Your task to perform on an android device: see tabs open on other devices in the chrome app Image 0: 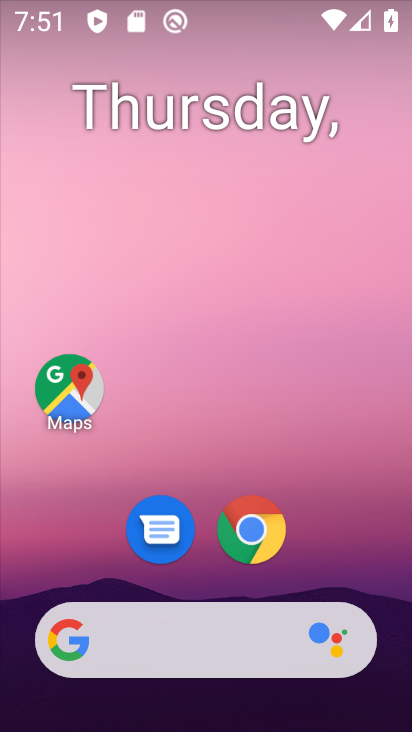
Step 0: click (247, 528)
Your task to perform on an android device: see tabs open on other devices in the chrome app Image 1: 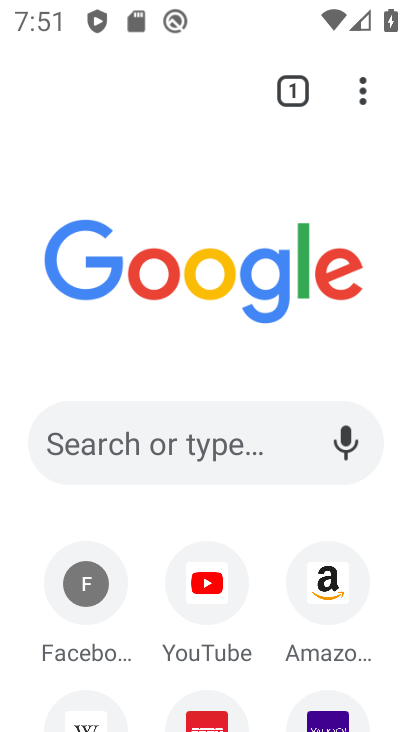
Step 1: click (376, 84)
Your task to perform on an android device: see tabs open on other devices in the chrome app Image 2: 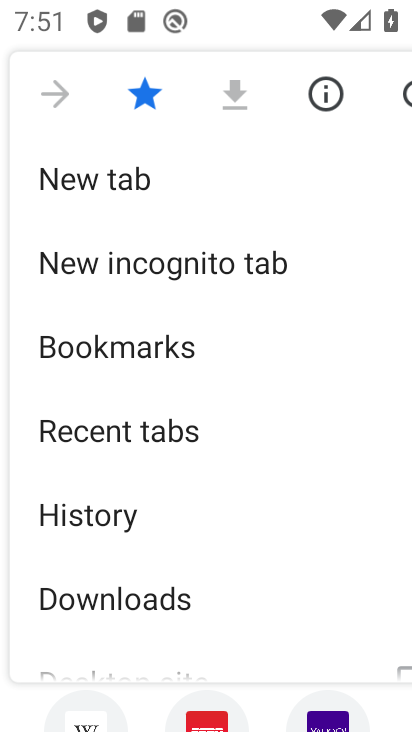
Step 2: drag from (139, 536) to (163, 260)
Your task to perform on an android device: see tabs open on other devices in the chrome app Image 3: 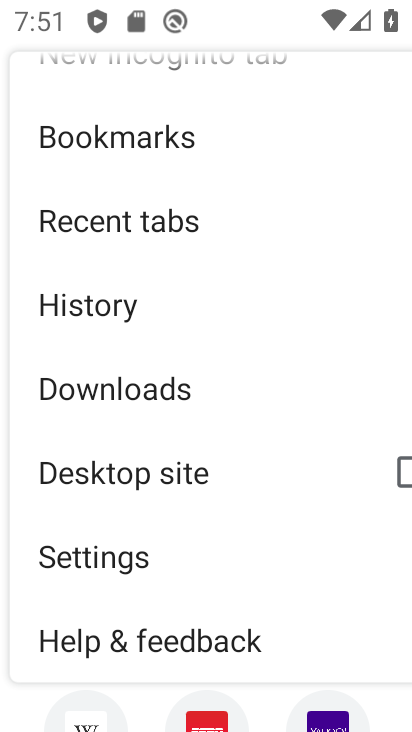
Step 3: click (112, 557)
Your task to perform on an android device: see tabs open on other devices in the chrome app Image 4: 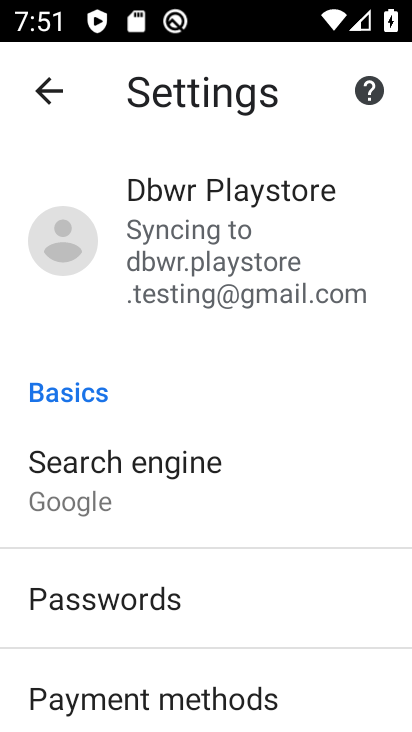
Step 4: drag from (185, 635) to (244, 139)
Your task to perform on an android device: see tabs open on other devices in the chrome app Image 5: 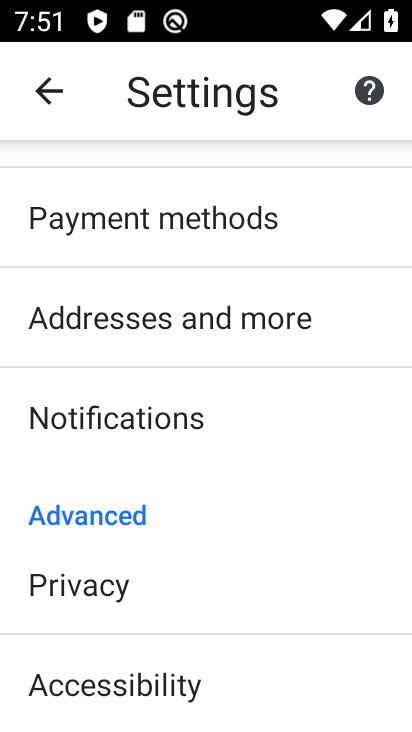
Step 5: drag from (204, 415) to (97, 699)
Your task to perform on an android device: see tabs open on other devices in the chrome app Image 6: 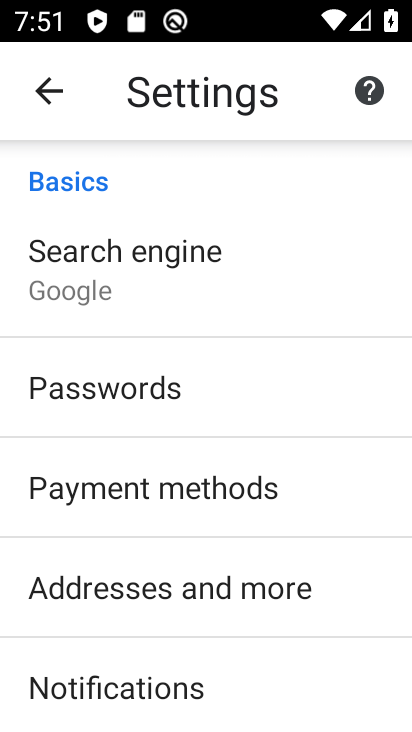
Step 6: drag from (149, 618) to (215, 242)
Your task to perform on an android device: see tabs open on other devices in the chrome app Image 7: 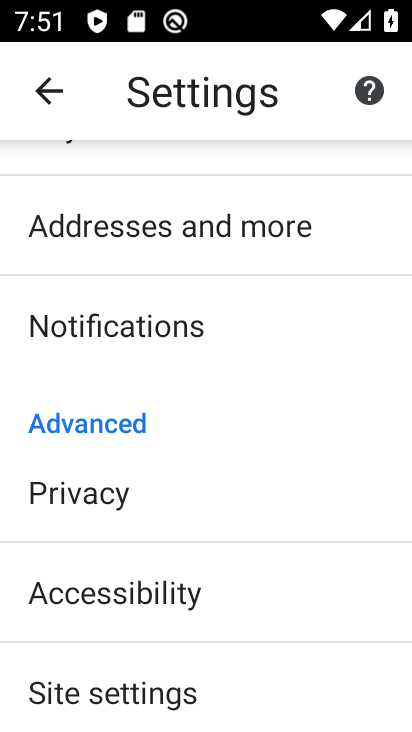
Step 7: click (141, 693)
Your task to perform on an android device: see tabs open on other devices in the chrome app Image 8: 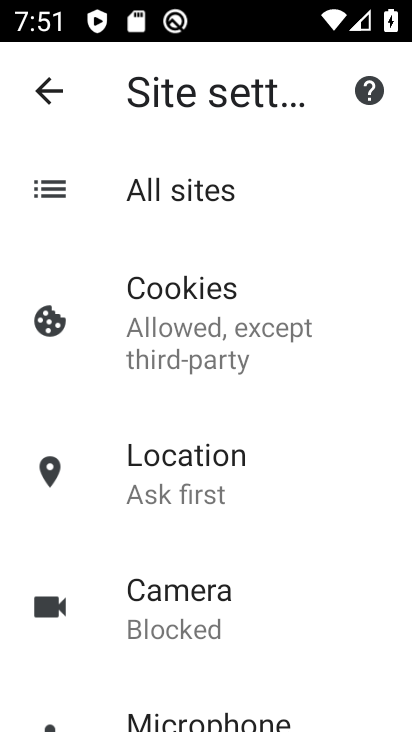
Step 8: click (43, 91)
Your task to perform on an android device: see tabs open on other devices in the chrome app Image 9: 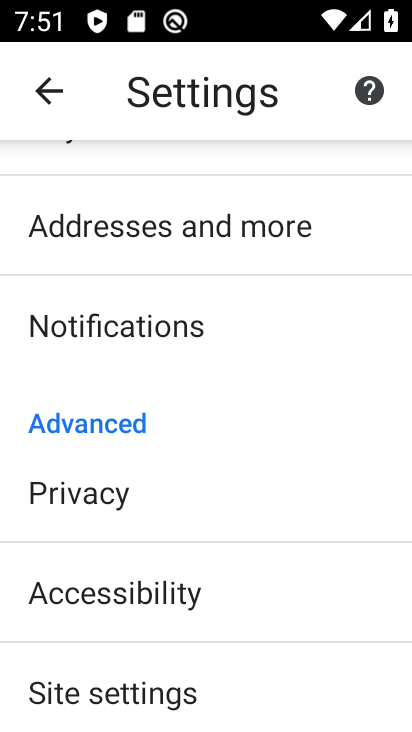
Step 9: drag from (268, 283) to (238, 592)
Your task to perform on an android device: see tabs open on other devices in the chrome app Image 10: 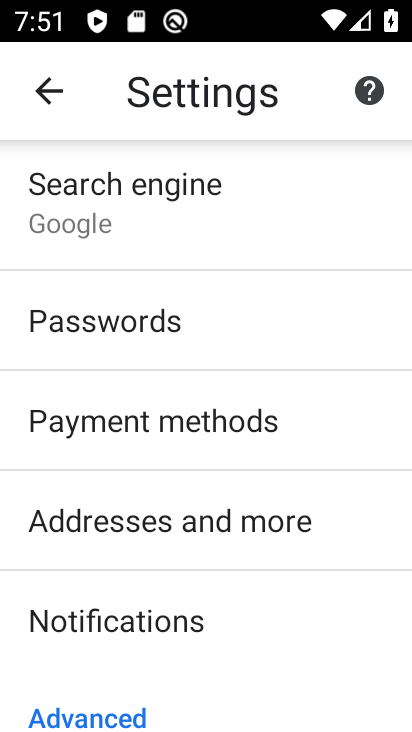
Step 10: drag from (210, 272) to (210, 611)
Your task to perform on an android device: see tabs open on other devices in the chrome app Image 11: 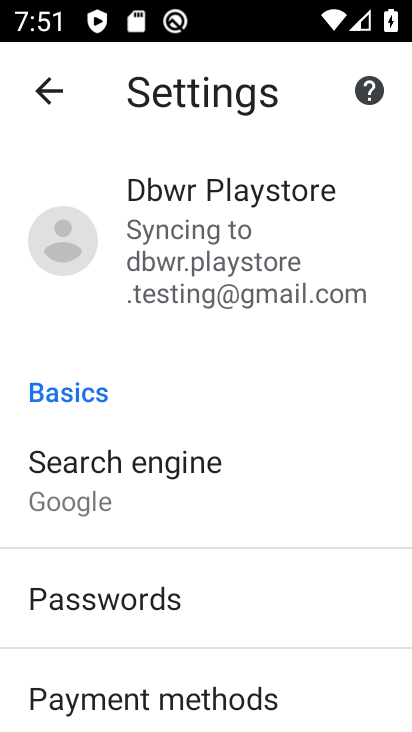
Step 11: drag from (192, 644) to (196, 310)
Your task to perform on an android device: see tabs open on other devices in the chrome app Image 12: 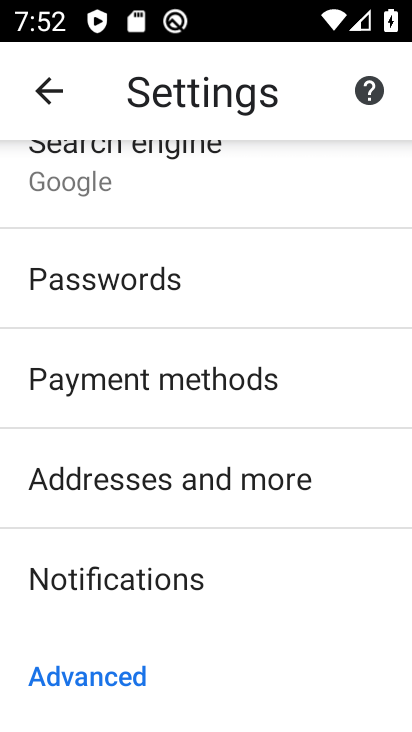
Step 12: drag from (188, 199) to (201, 544)
Your task to perform on an android device: see tabs open on other devices in the chrome app Image 13: 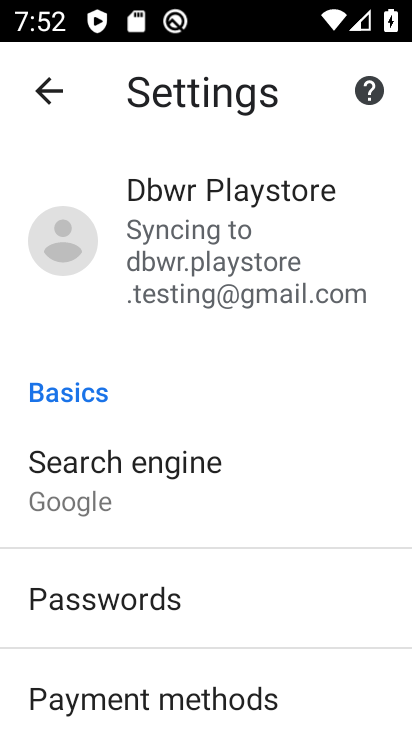
Step 13: drag from (201, 544) to (256, 153)
Your task to perform on an android device: see tabs open on other devices in the chrome app Image 14: 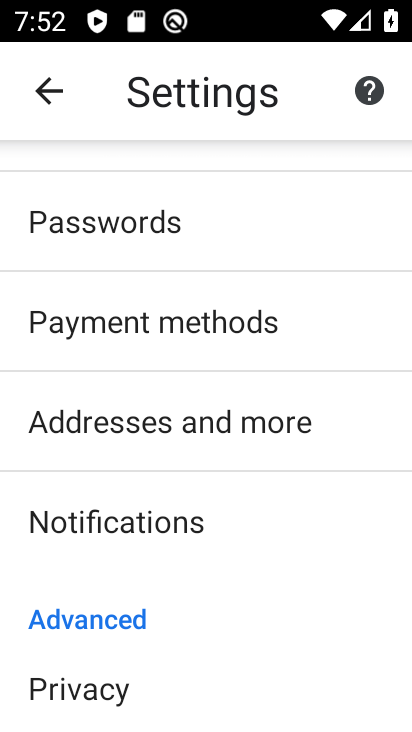
Step 14: drag from (187, 588) to (189, 257)
Your task to perform on an android device: see tabs open on other devices in the chrome app Image 15: 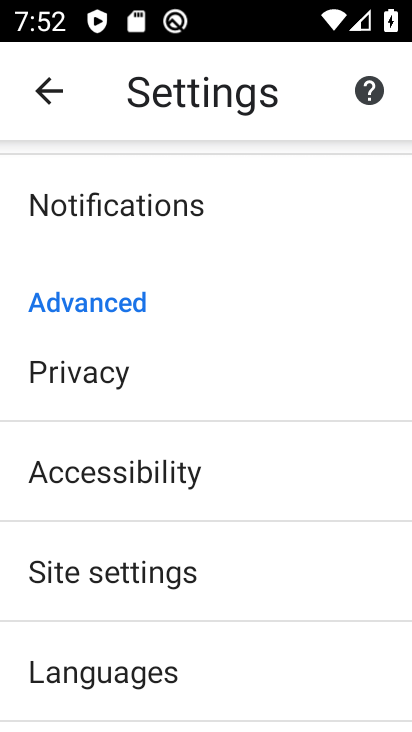
Step 15: click (12, 60)
Your task to perform on an android device: see tabs open on other devices in the chrome app Image 16: 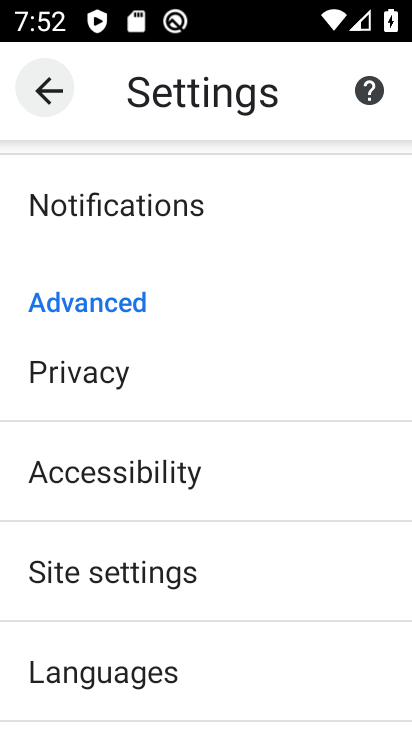
Step 16: click (12, 60)
Your task to perform on an android device: see tabs open on other devices in the chrome app Image 17: 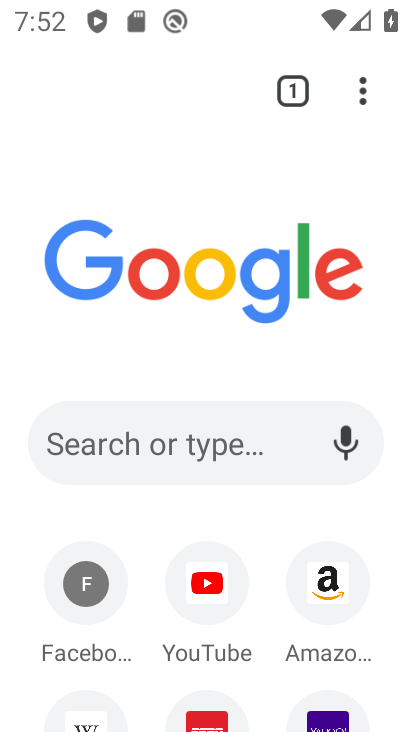
Step 17: click (382, 87)
Your task to perform on an android device: see tabs open on other devices in the chrome app Image 18: 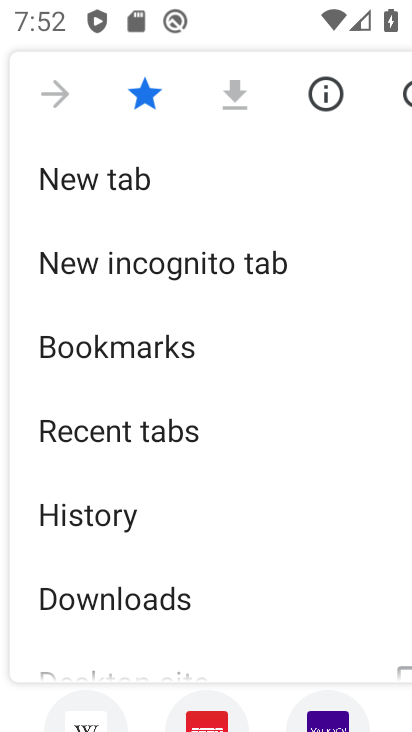
Step 18: click (134, 441)
Your task to perform on an android device: see tabs open on other devices in the chrome app Image 19: 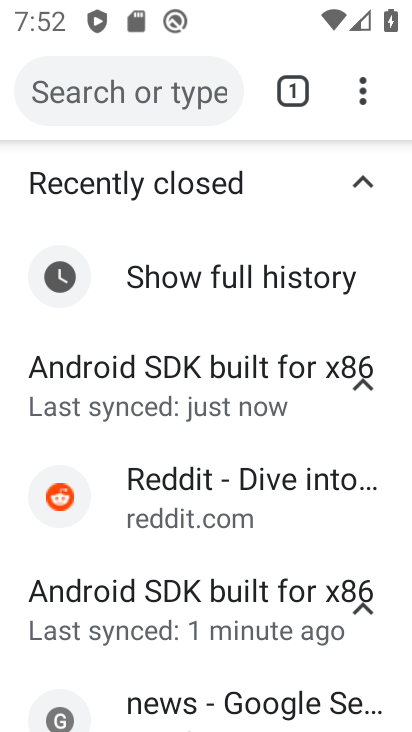
Step 19: task complete